Your task to perform on an android device: What's the weather? Image 0: 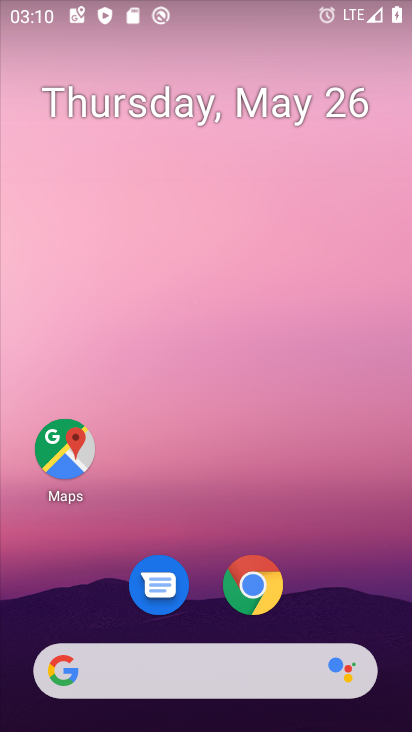
Step 0: click (220, 662)
Your task to perform on an android device: What's the weather? Image 1: 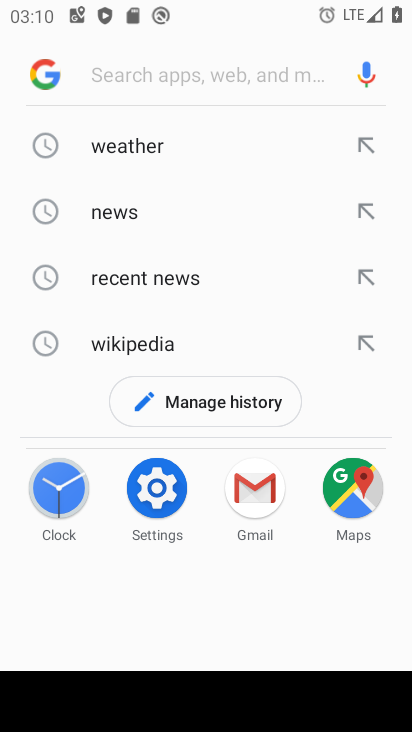
Step 1: click (126, 155)
Your task to perform on an android device: What's the weather? Image 2: 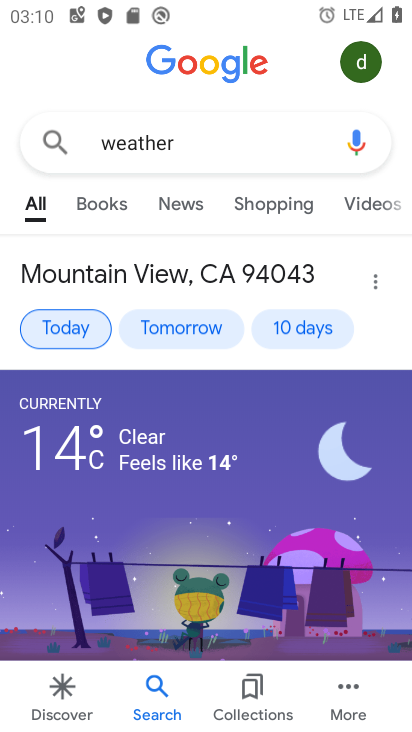
Step 2: click (90, 322)
Your task to perform on an android device: What's the weather? Image 3: 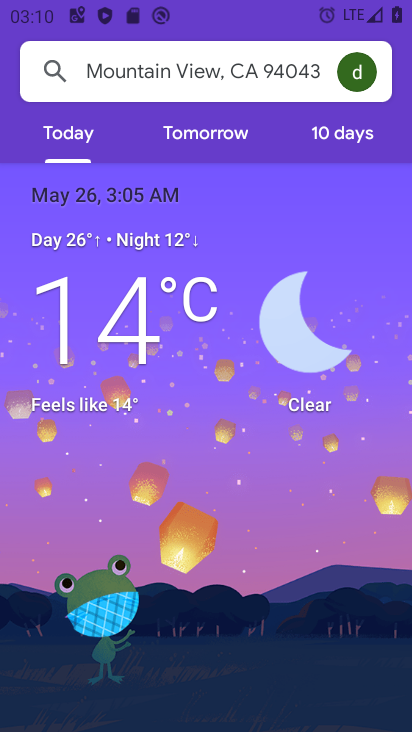
Step 3: task complete